Your task to perform on an android device: delete location history Image 0: 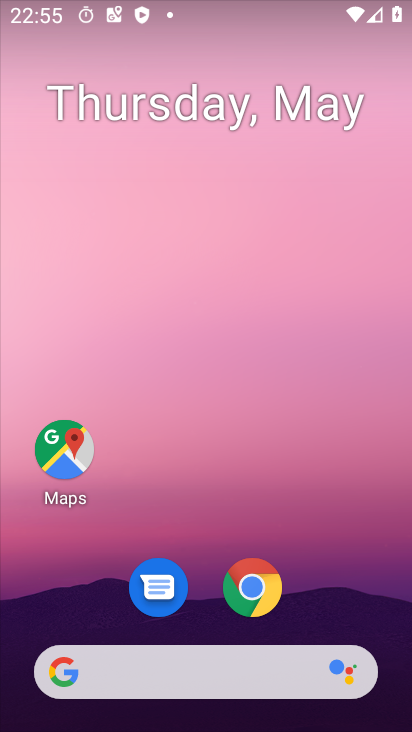
Step 0: click (60, 457)
Your task to perform on an android device: delete location history Image 1: 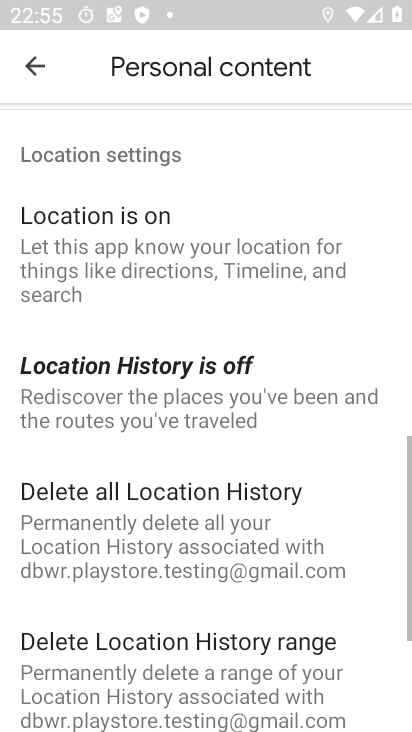
Step 1: click (88, 560)
Your task to perform on an android device: delete location history Image 2: 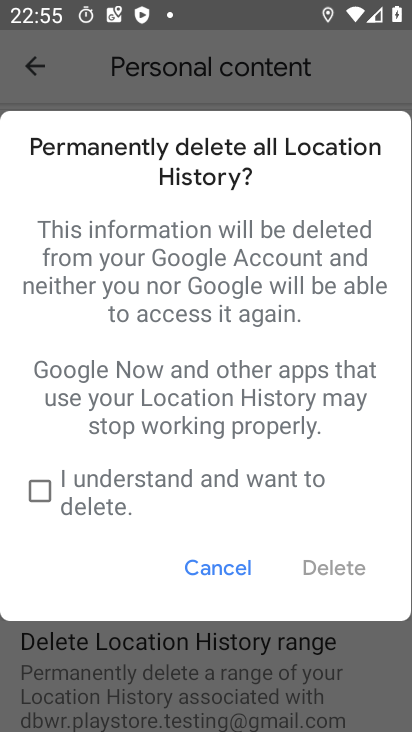
Step 2: click (16, 489)
Your task to perform on an android device: delete location history Image 3: 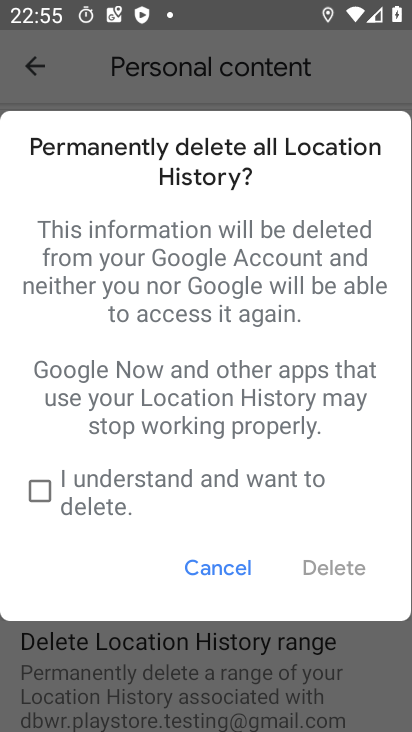
Step 3: click (35, 492)
Your task to perform on an android device: delete location history Image 4: 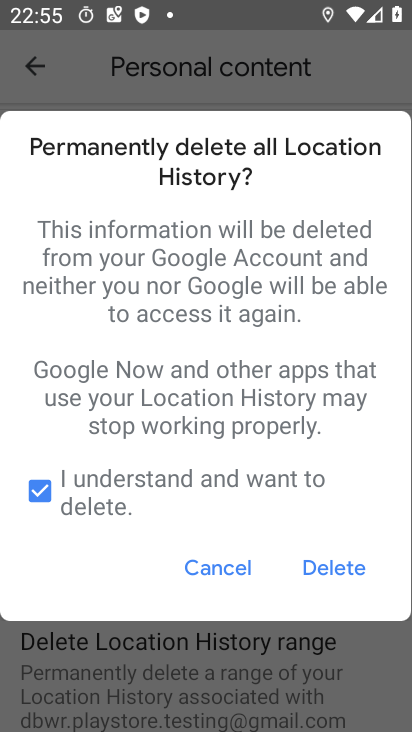
Step 4: click (329, 565)
Your task to perform on an android device: delete location history Image 5: 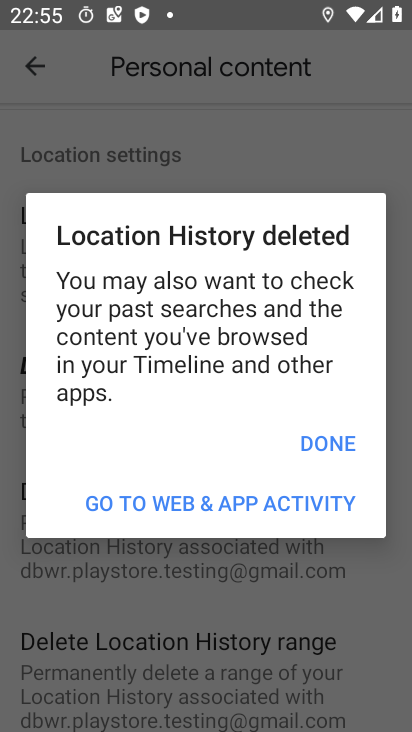
Step 5: click (320, 439)
Your task to perform on an android device: delete location history Image 6: 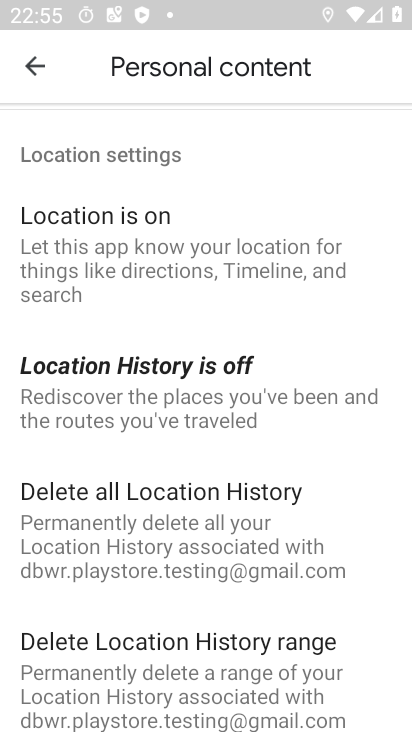
Step 6: task complete